Your task to perform on an android device: Go to sound settings Image 0: 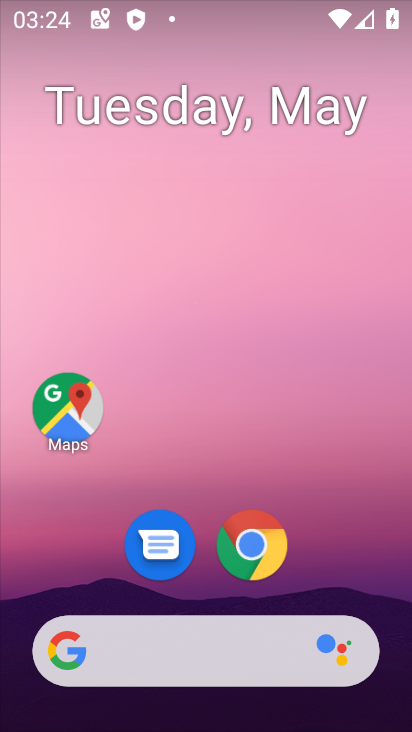
Step 0: drag from (393, 607) to (271, 127)
Your task to perform on an android device: Go to sound settings Image 1: 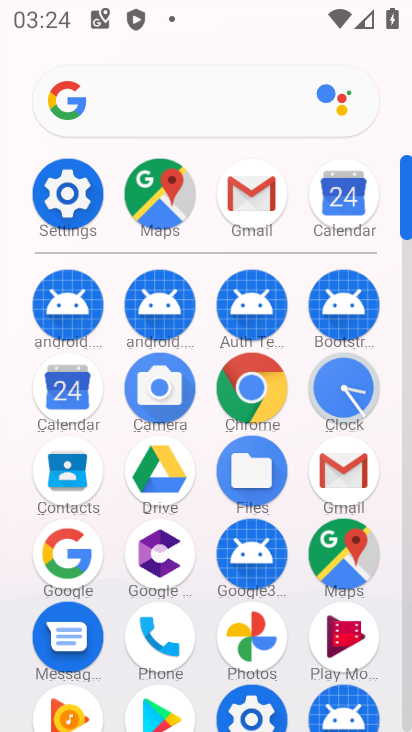
Step 1: click (406, 705)
Your task to perform on an android device: Go to sound settings Image 2: 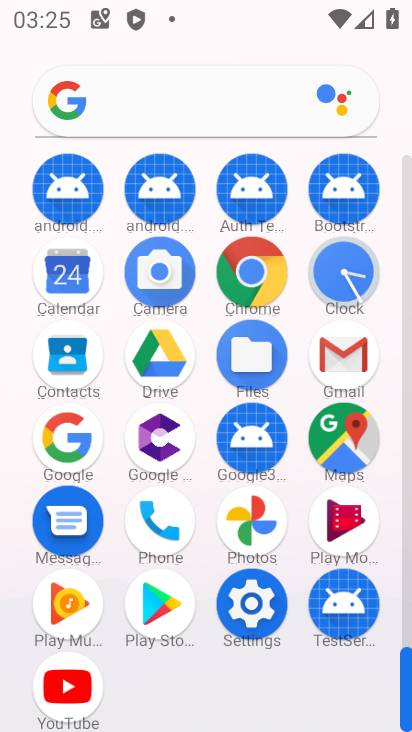
Step 2: click (251, 601)
Your task to perform on an android device: Go to sound settings Image 3: 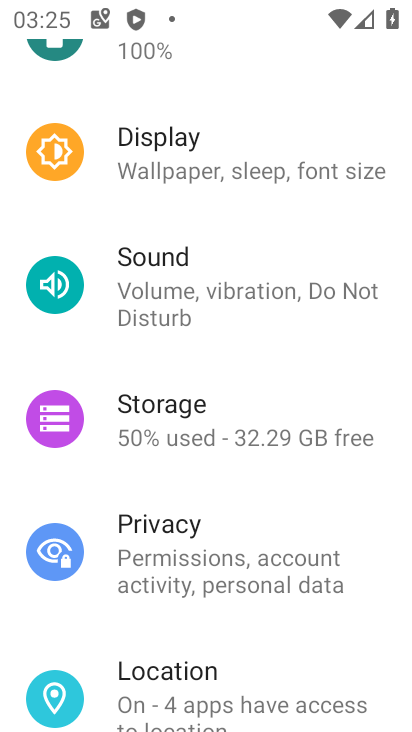
Step 3: click (173, 280)
Your task to perform on an android device: Go to sound settings Image 4: 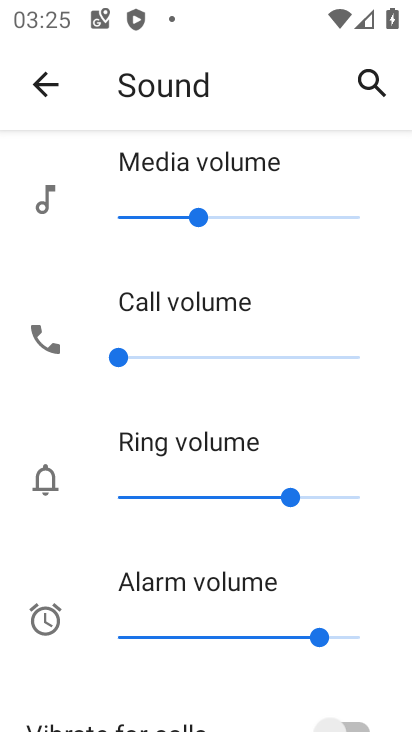
Step 4: drag from (364, 632) to (313, 241)
Your task to perform on an android device: Go to sound settings Image 5: 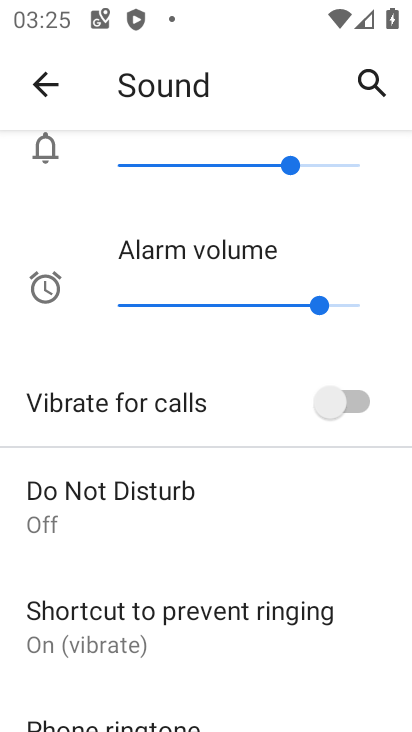
Step 5: drag from (361, 573) to (360, 216)
Your task to perform on an android device: Go to sound settings Image 6: 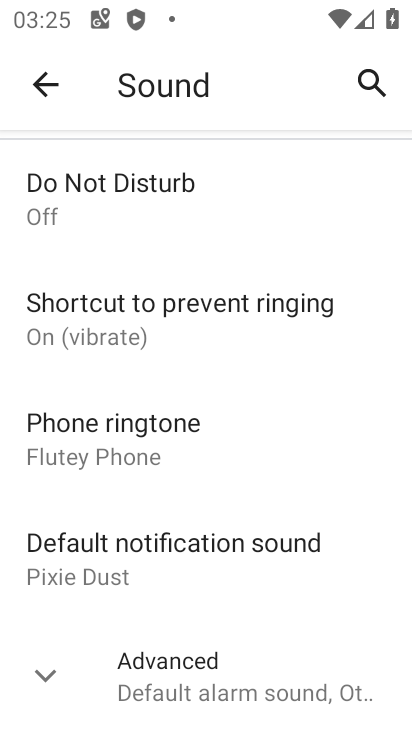
Step 6: click (42, 673)
Your task to perform on an android device: Go to sound settings Image 7: 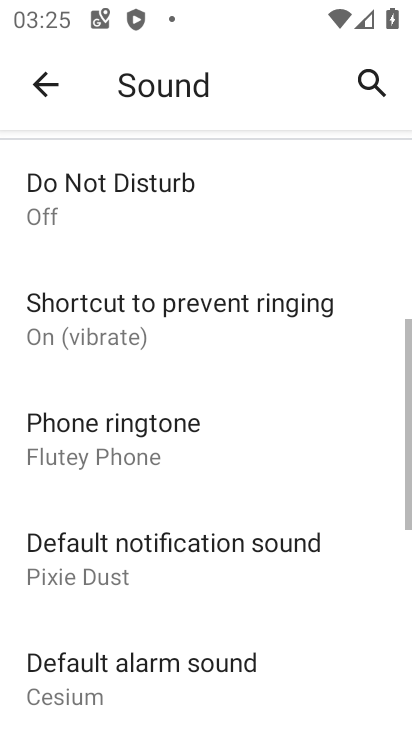
Step 7: task complete